Your task to perform on an android device: open a new tab in the chrome app Image 0: 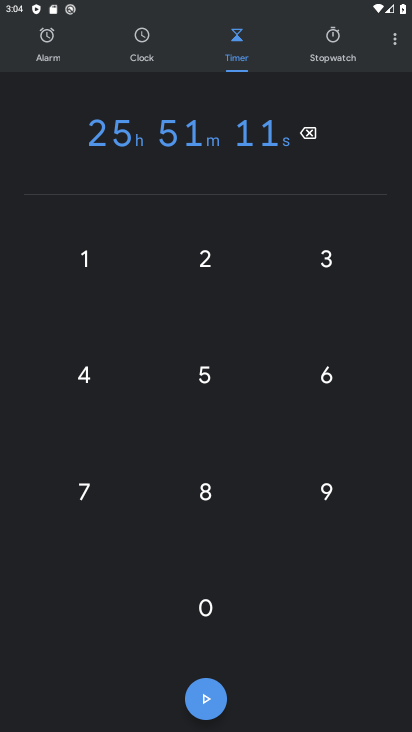
Step 0: press home button
Your task to perform on an android device: open a new tab in the chrome app Image 1: 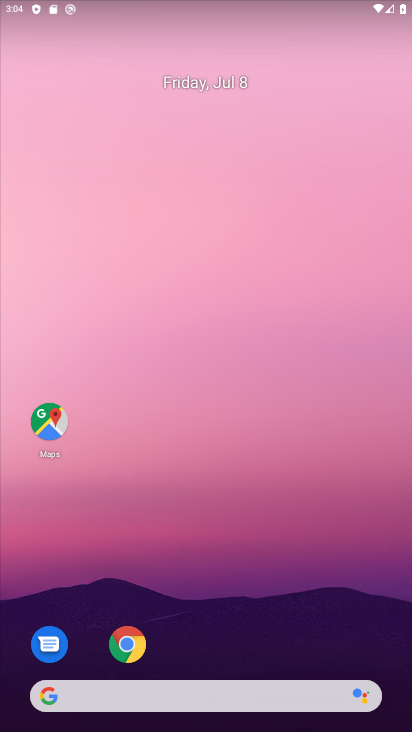
Step 1: click (134, 636)
Your task to perform on an android device: open a new tab in the chrome app Image 2: 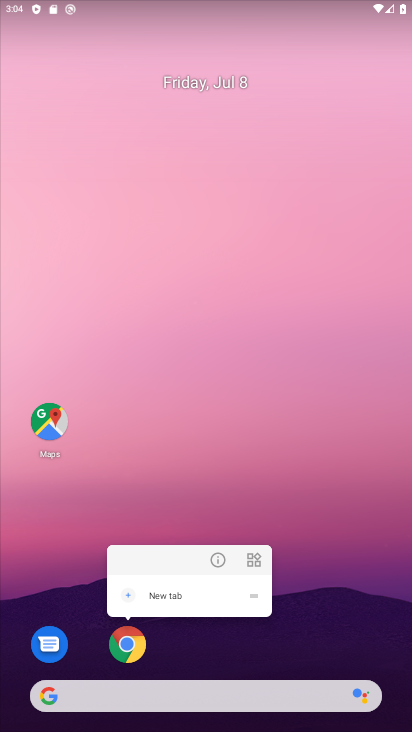
Step 2: click (130, 641)
Your task to perform on an android device: open a new tab in the chrome app Image 3: 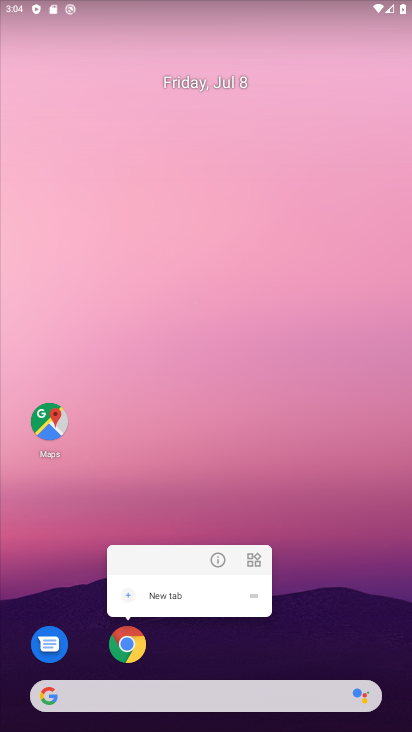
Step 3: click (129, 643)
Your task to perform on an android device: open a new tab in the chrome app Image 4: 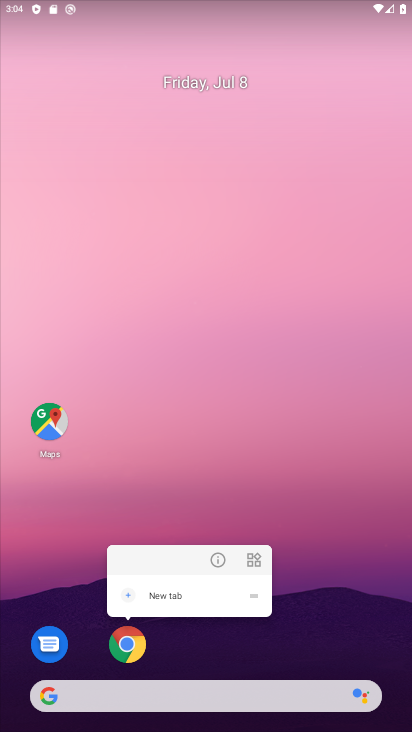
Step 4: click (161, 597)
Your task to perform on an android device: open a new tab in the chrome app Image 5: 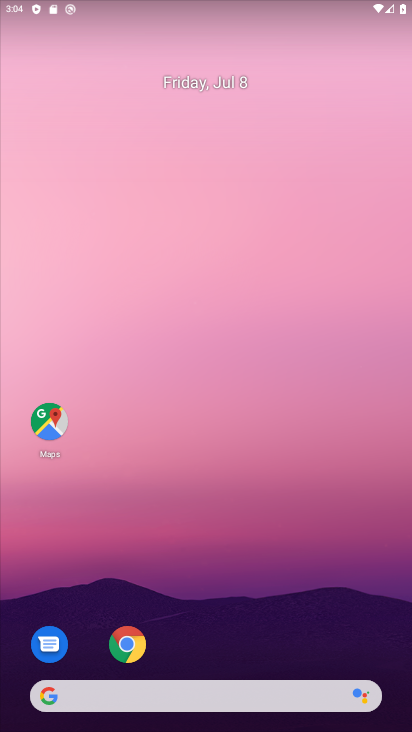
Step 5: click (135, 645)
Your task to perform on an android device: open a new tab in the chrome app Image 6: 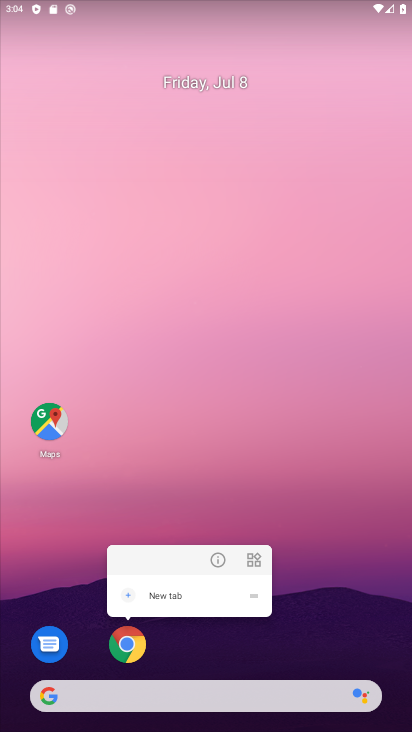
Step 6: click (135, 645)
Your task to perform on an android device: open a new tab in the chrome app Image 7: 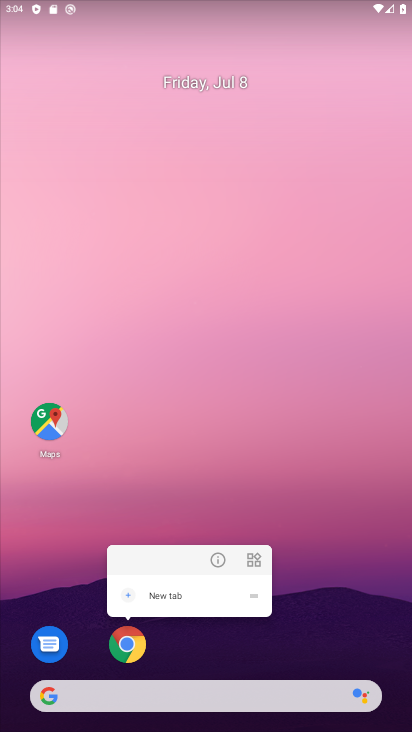
Step 7: click (136, 643)
Your task to perform on an android device: open a new tab in the chrome app Image 8: 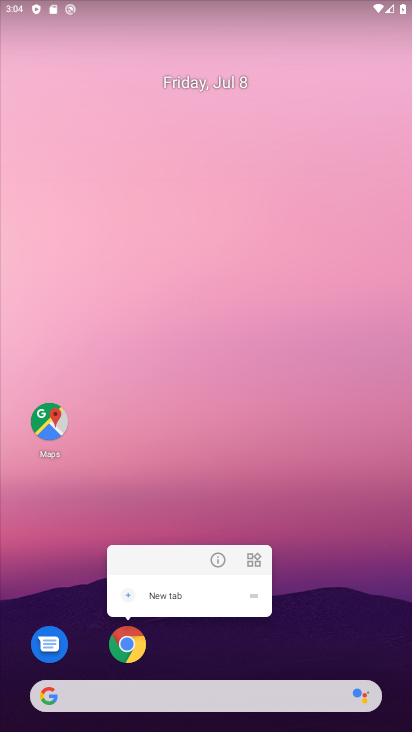
Step 8: task complete